Your task to perform on an android device: Search for flights from Buenos aires to Helsinki Image 0: 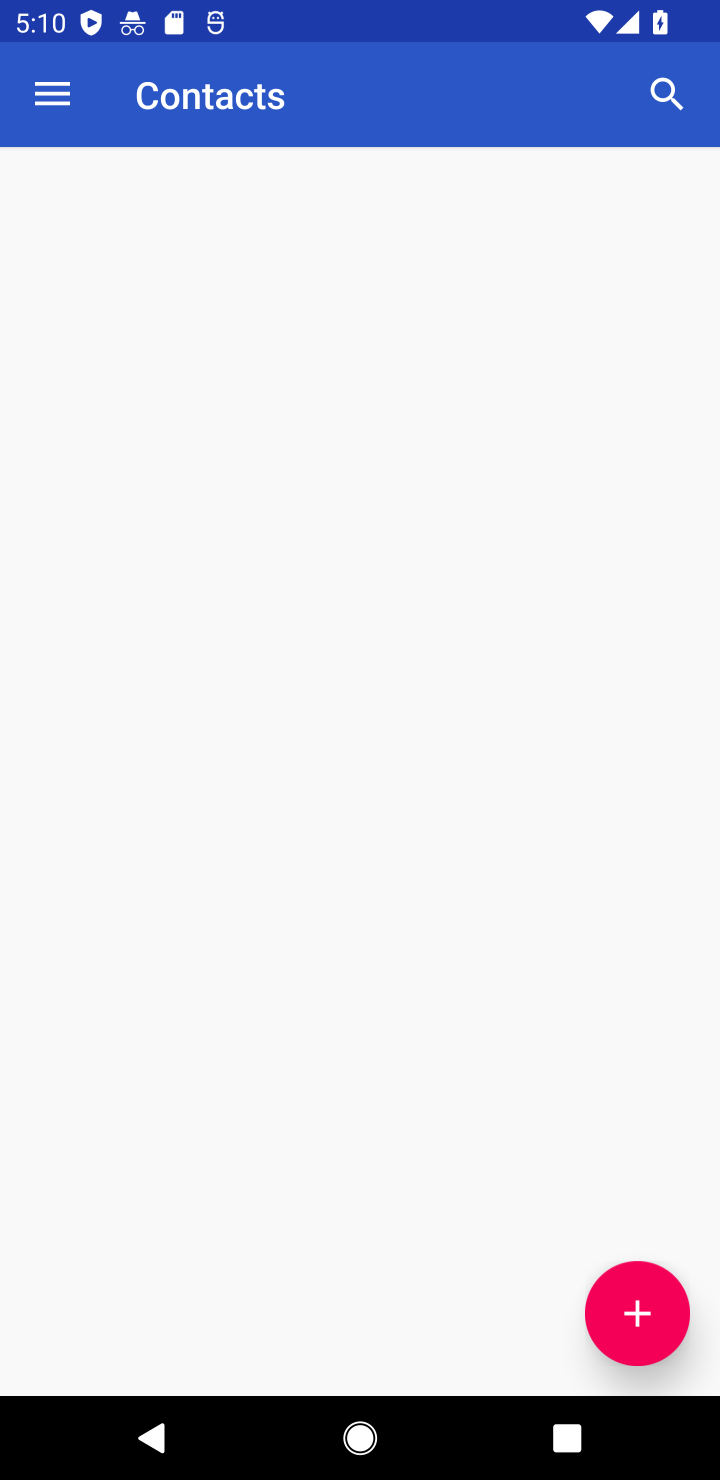
Step 0: press home button
Your task to perform on an android device: Search for flights from Buenos aires to Helsinki Image 1: 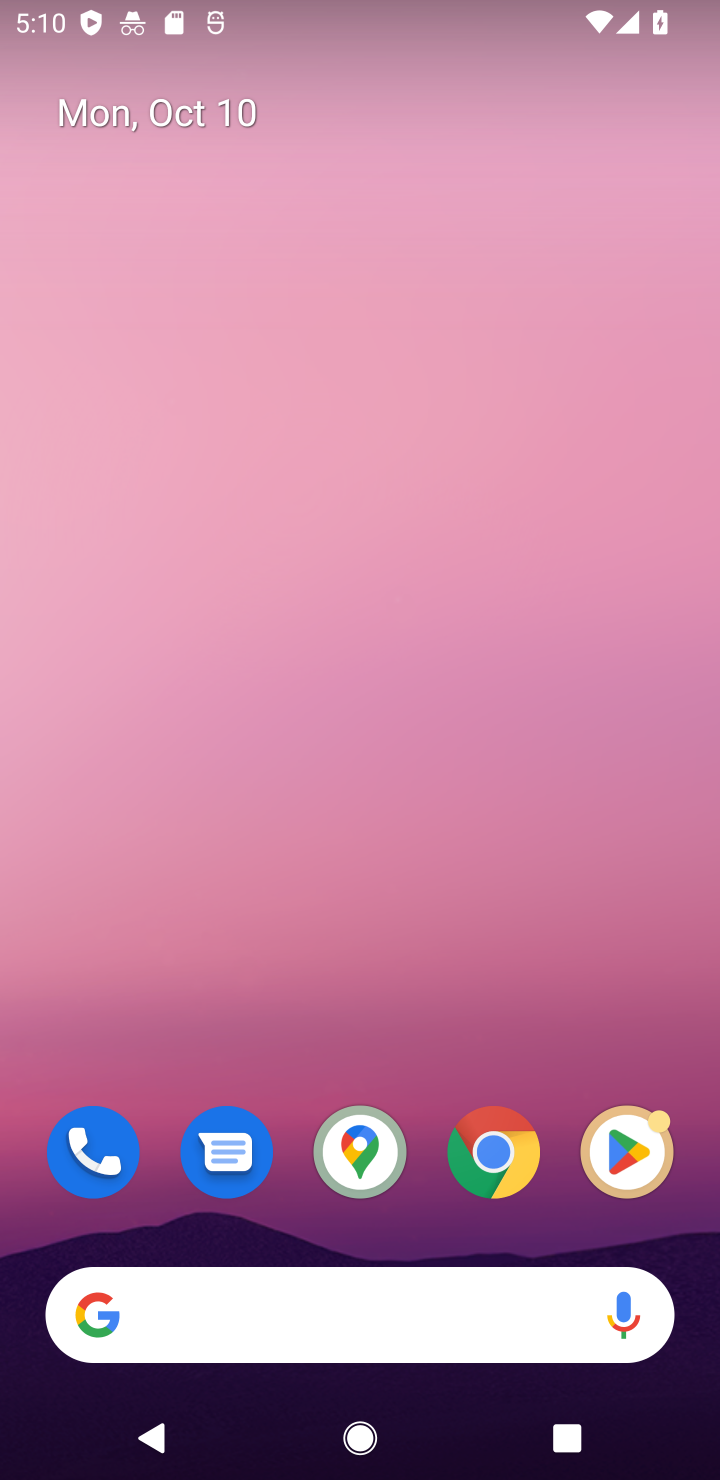
Step 1: click (495, 1150)
Your task to perform on an android device: Search for flights from Buenos aires to Helsinki Image 2: 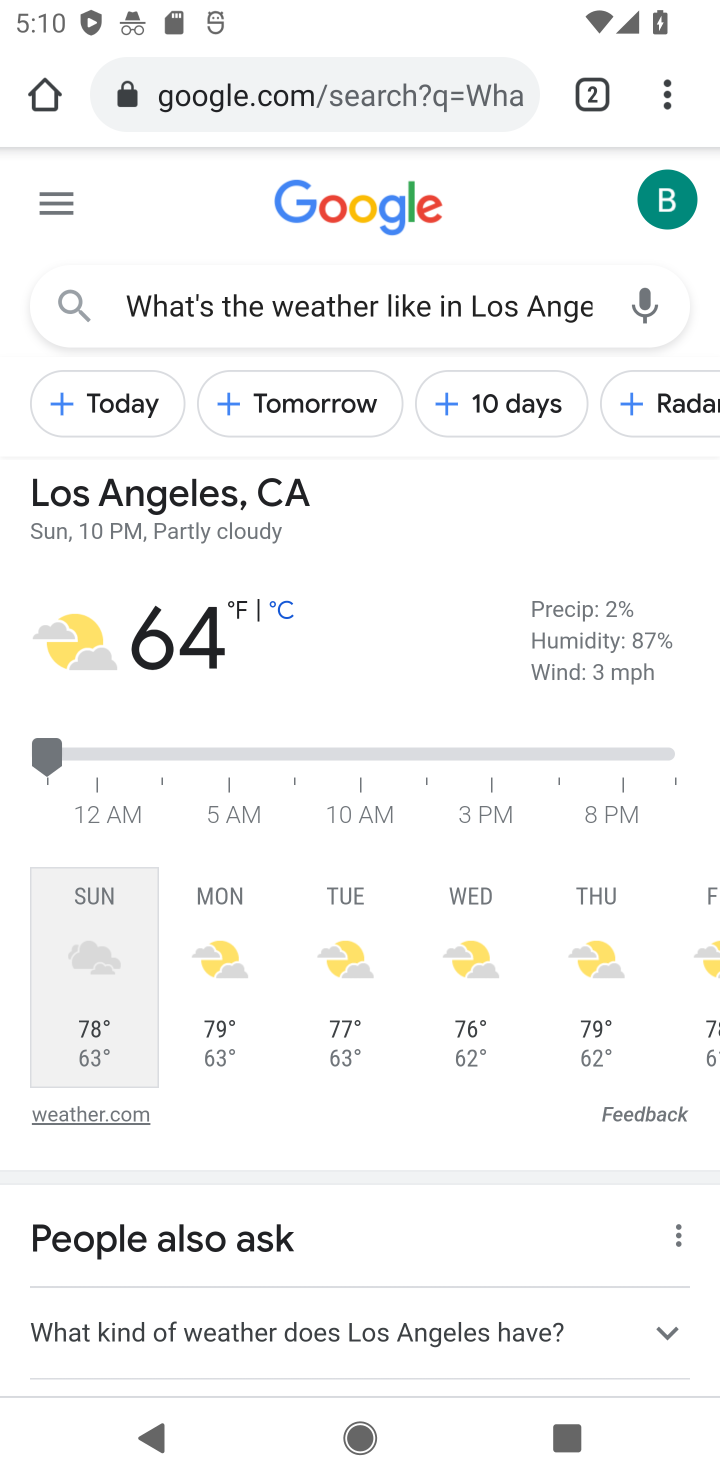
Step 2: click (417, 77)
Your task to perform on an android device: Search for flights from Buenos aires to Helsinki Image 3: 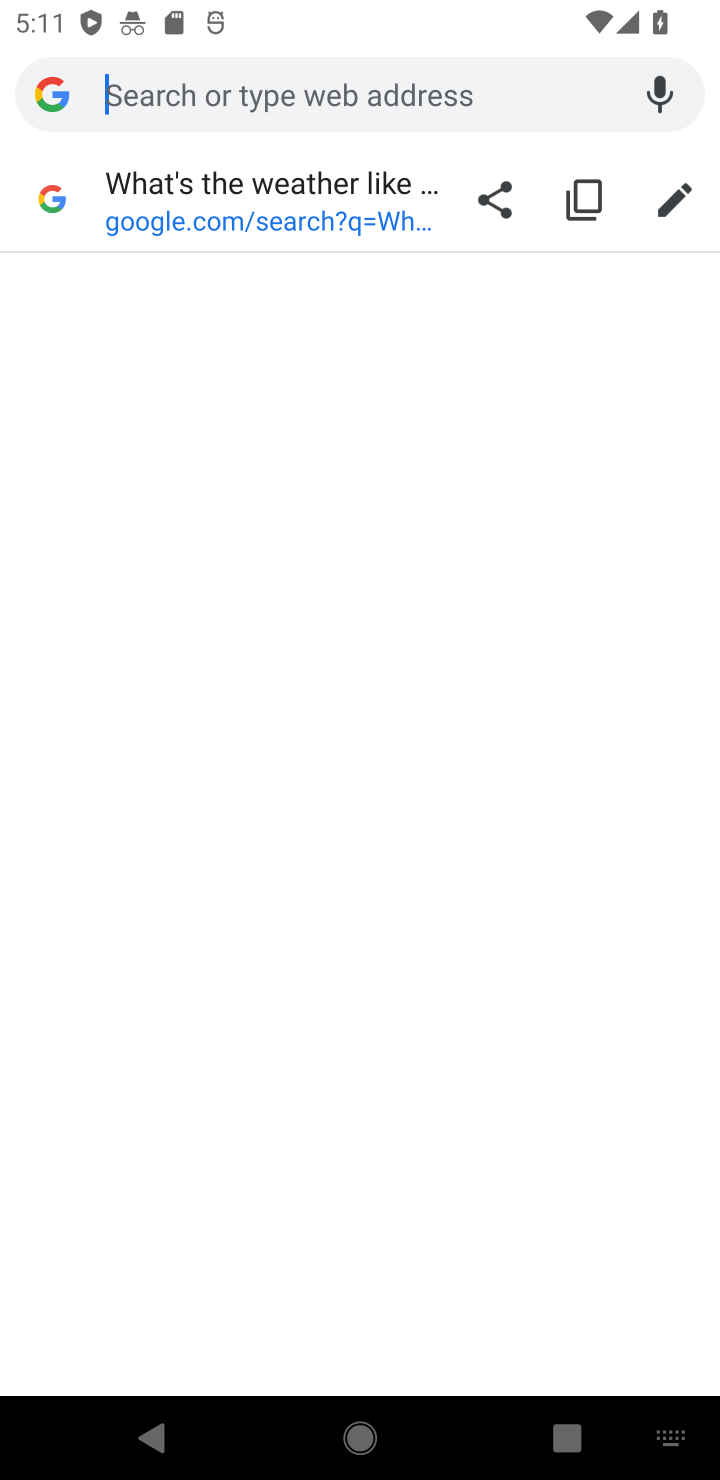
Step 3: type "flights from Buenos aires to Helsinki"
Your task to perform on an android device: Search for flights from Buenos aires to Helsinki Image 4: 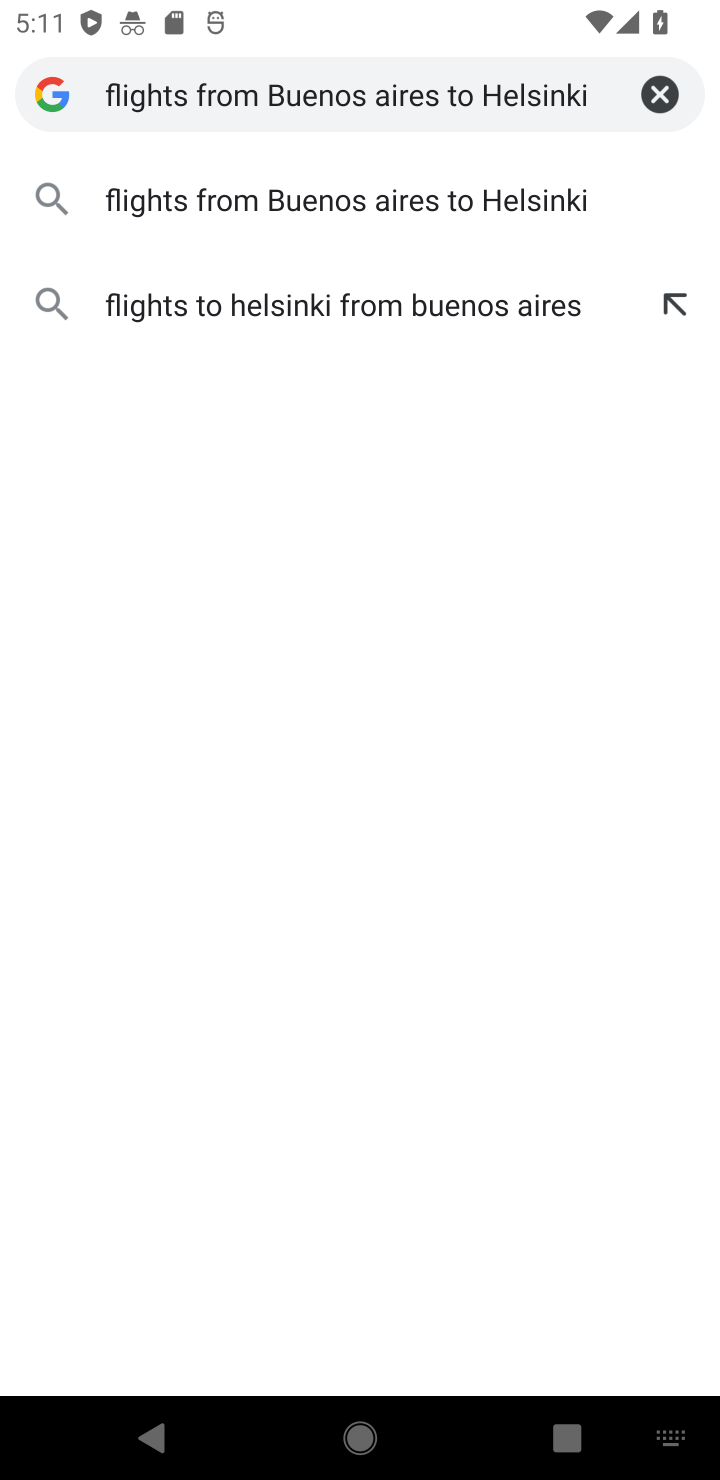
Step 4: click (348, 202)
Your task to perform on an android device: Search for flights from Buenos aires to Helsinki Image 5: 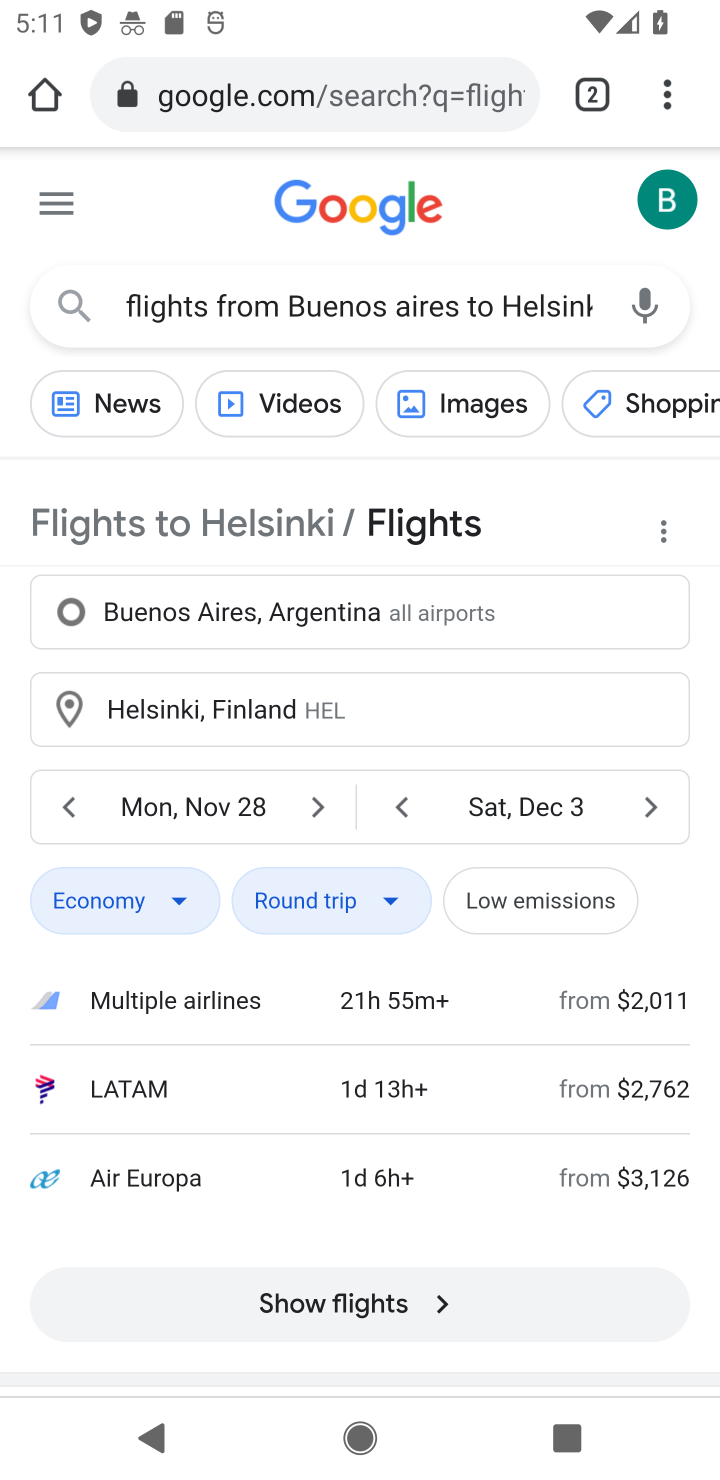
Step 5: task complete